Your task to perform on an android device: turn on sleep mode Image 0: 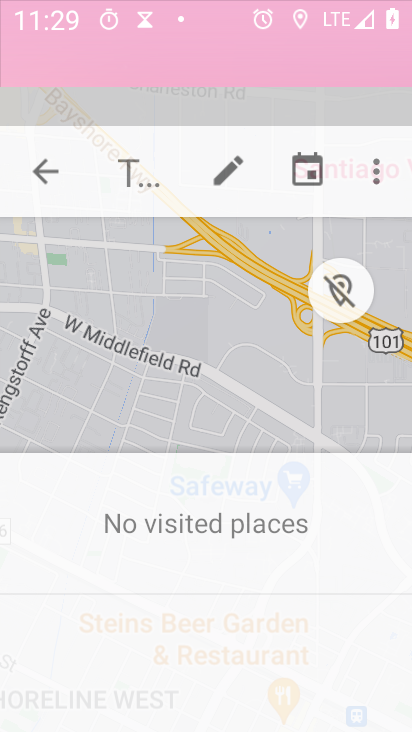
Step 0: press home button
Your task to perform on an android device: turn on sleep mode Image 1: 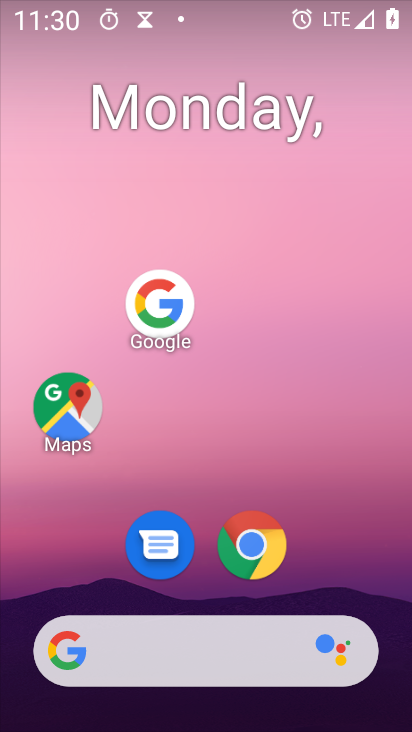
Step 1: drag from (212, 605) to (324, 152)
Your task to perform on an android device: turn on sleep mode Image 2: 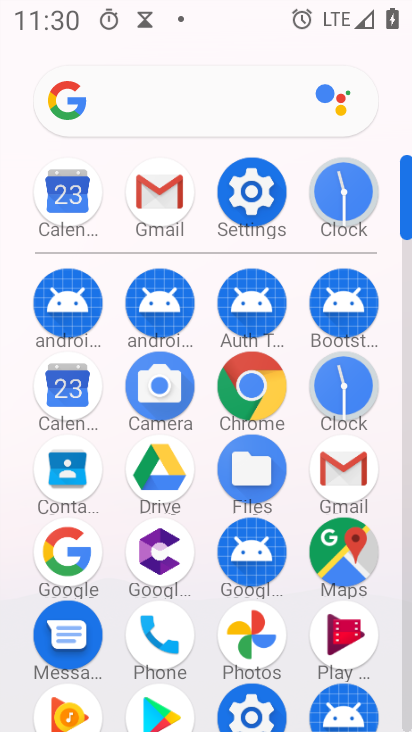
Step 2: click (252, 191)
Your task to perform on an android device: turn on sleep mode Image 3: 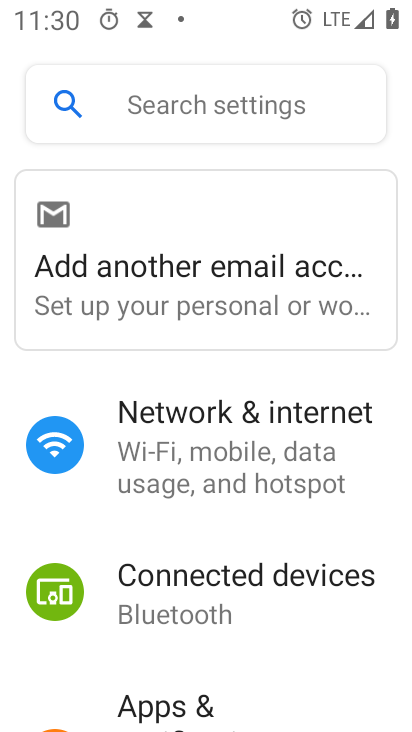
Step 3: drag from (246, 673) to (366, 119)
Your task to perform on an android device: turn on sleep mode Image 4: 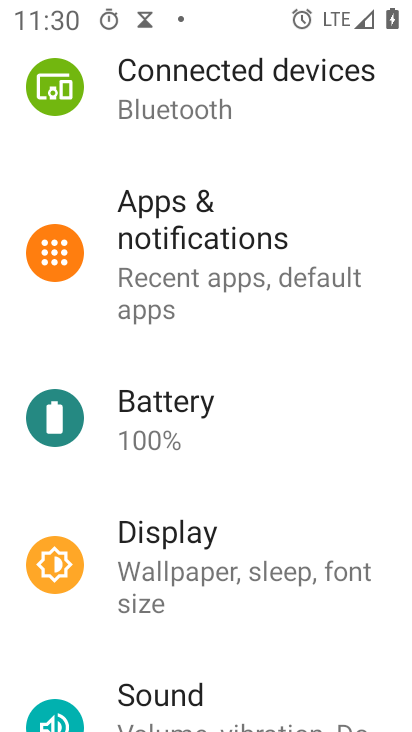
Step 4: click (204, 548)
Your task to perform on an android device: turn on sleep mode Image 5: 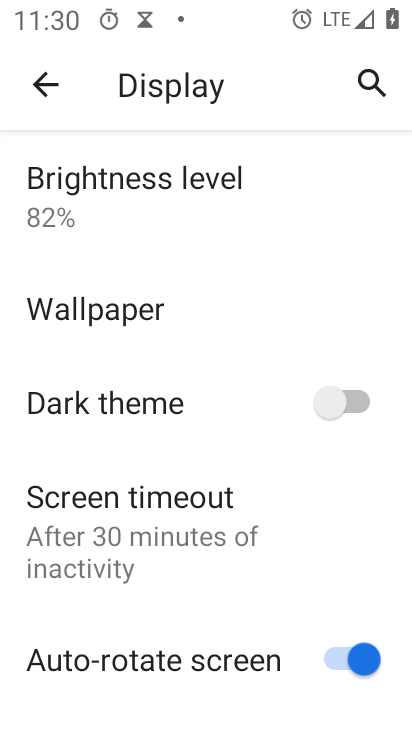
Step 5: task complete